Your task to perform on an android device: What's on my calendar today? Image 0: 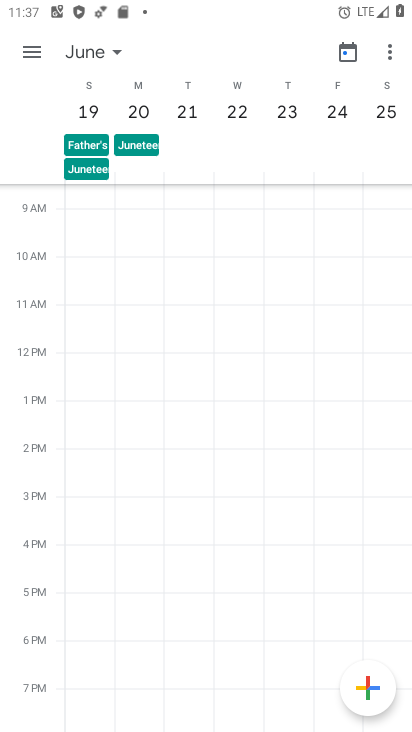
Step 0: press home button
Your task to perform on an android device: What's on my calendar today? Image 1: 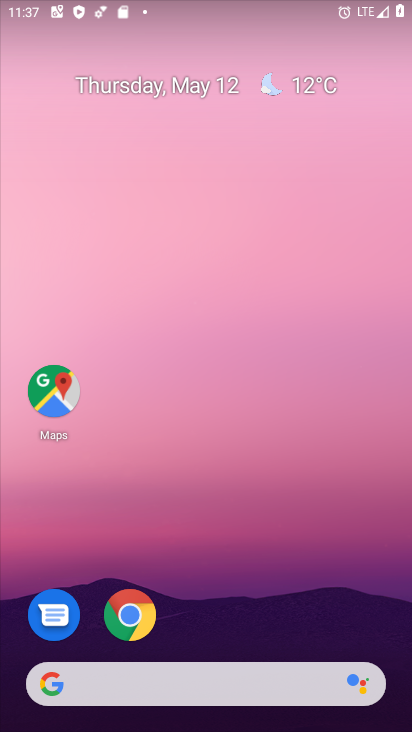
Step 1: drag from (225, 547) to (327, 47)
Your task to perform on an android device: What's on my calendar today? Image 2: 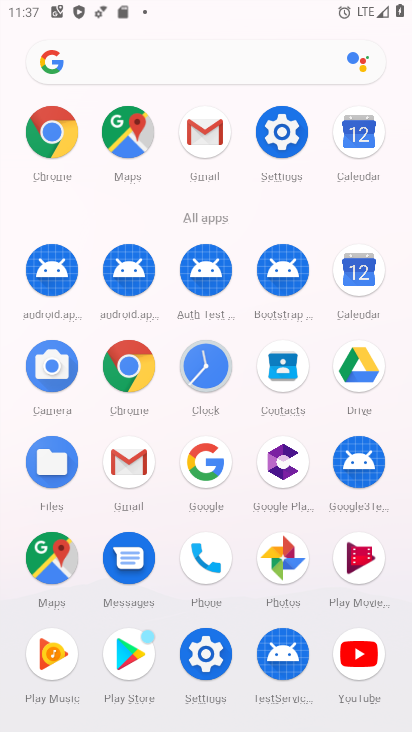
Step 2: click (345, 130)
Your task to perform on an android device: What's on my calendar today? Image 3: 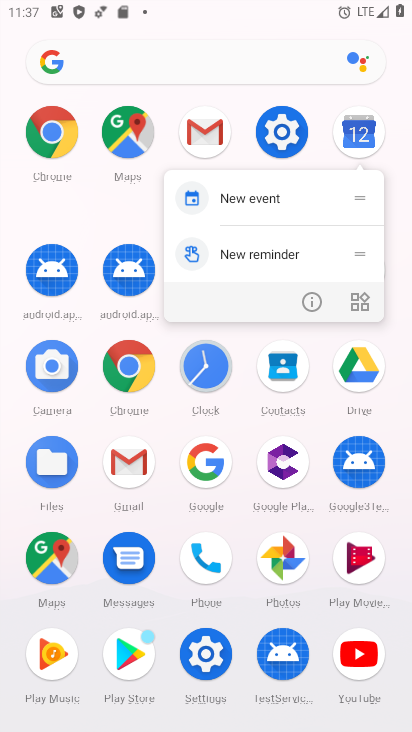
Step 3: click (361, 124)
Your task to perform on an android device: What's on my calendar today? Image 4: 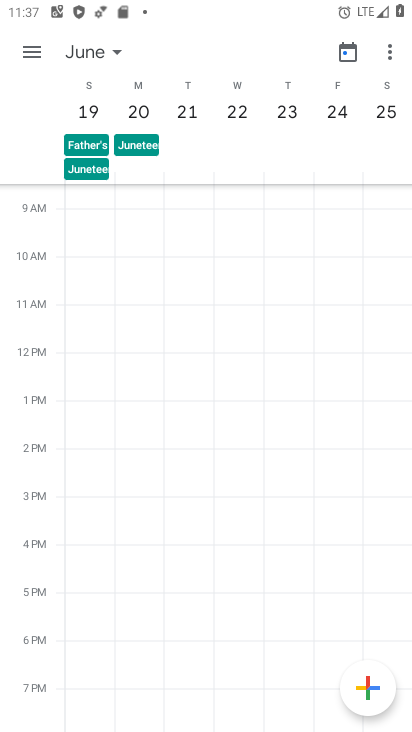
Step 4: click (30, 50)
Your task to perform on an android device: What's on my calendar today? Image 5: 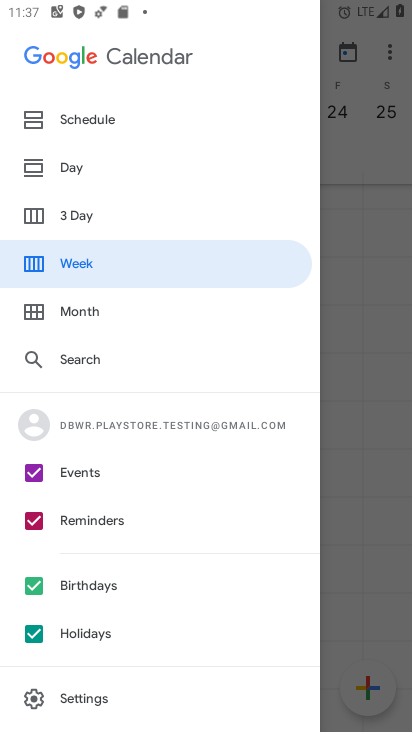
Step 5: click (36, 306)
Your task to perform on an android device: What's on my calendar today? Image 6: 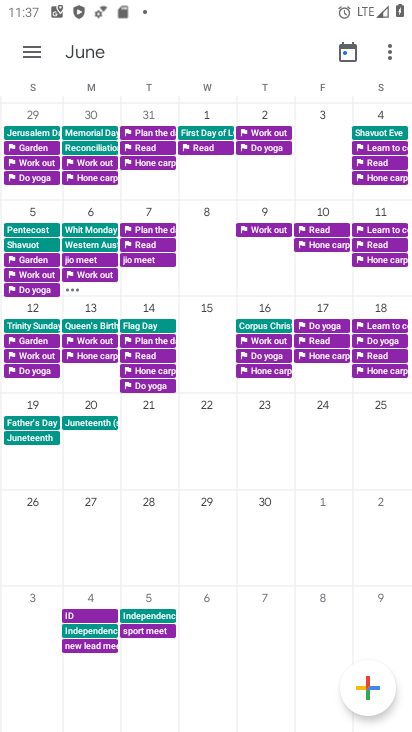
Step 6: drag from (33, 326) to (399, 280)
Your task to perform on an android device: What's on my calendar today? Image 7: 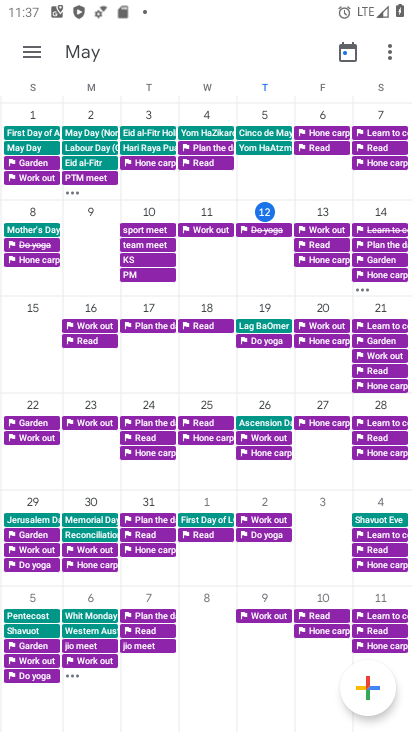
Step 7: click (262, 215)
Your task to perform on an android device: What's on my calendar today? Image 8: 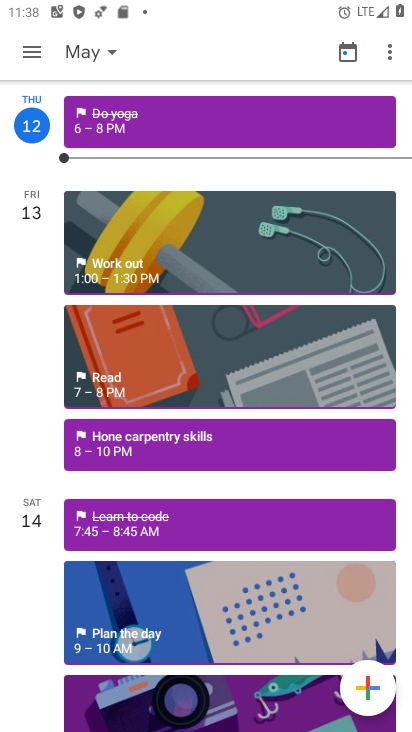
Step 8: task complete